Your task to perform on an android device: Open the calendar app, open the side menu, and click the "Day" option Image 0: 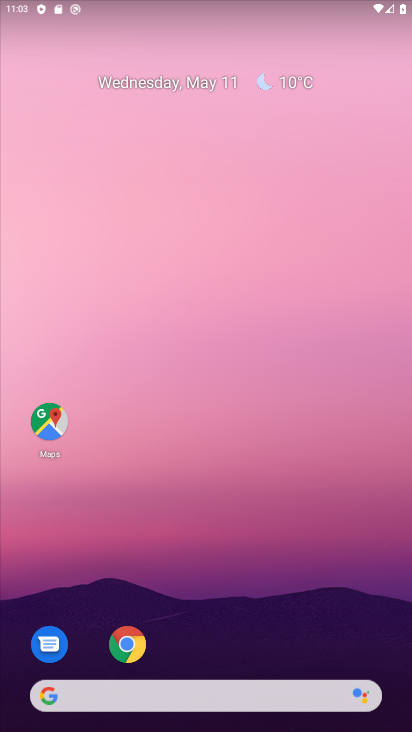
Step 0: drag from (281, 551) to (296, 35)
Your task to perform on an android device: Open the calendar app, open the side menu, and click the "Day" option Image 1: 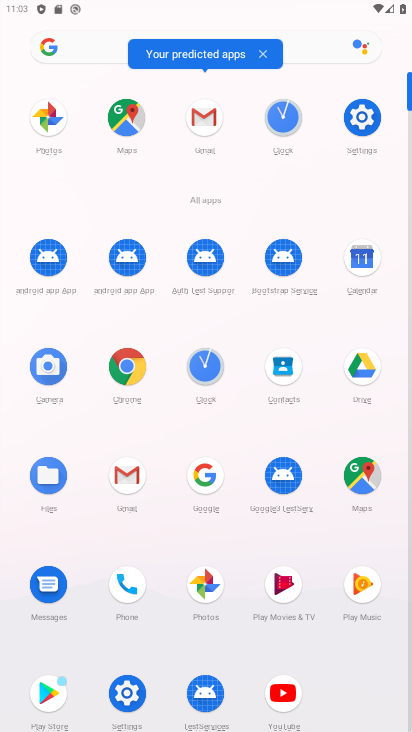
Step 1: click (366, 269)
Your task to perform on an android device: Open the calendar app, open the side menu, and click the "Day" option Image 2: 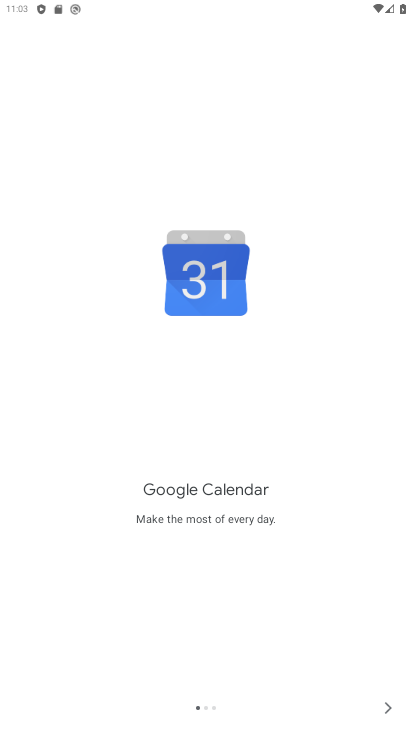
Step 2: click (395, 711)
Your task to perform on an android device: Open the calendar app, open the side menu, and click the "Day" option Image 3: 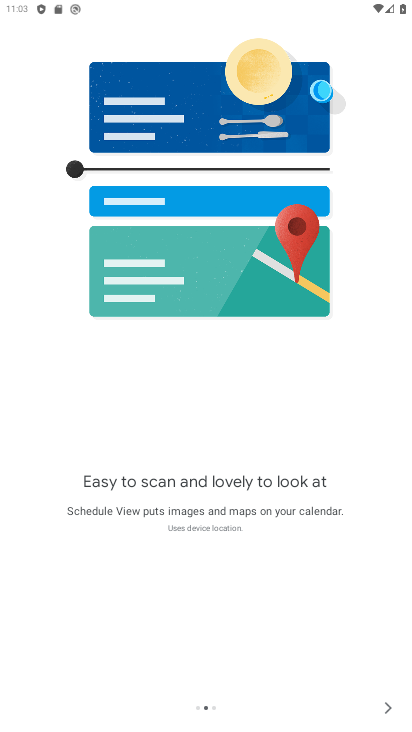
Step 3: click (379, 708)
Your task to perform on an android device: Open the calendar app, open the side menu, and click the "Day" option Image 4: 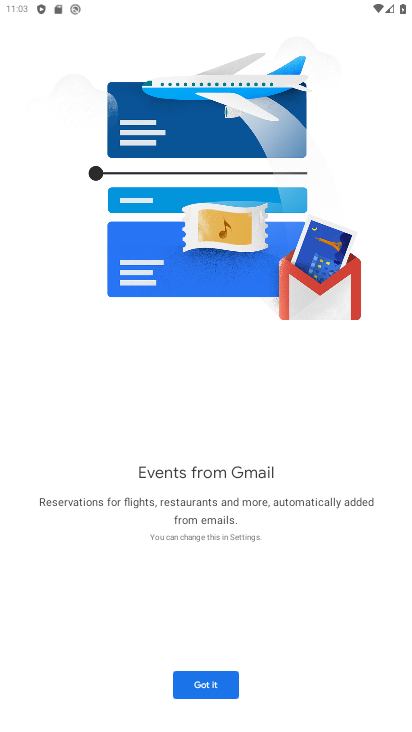
Step 4: click (213, 681)
Your task to perform on an android device: Open the calendar app, open the side menu, and click the "Day" option Image 5: 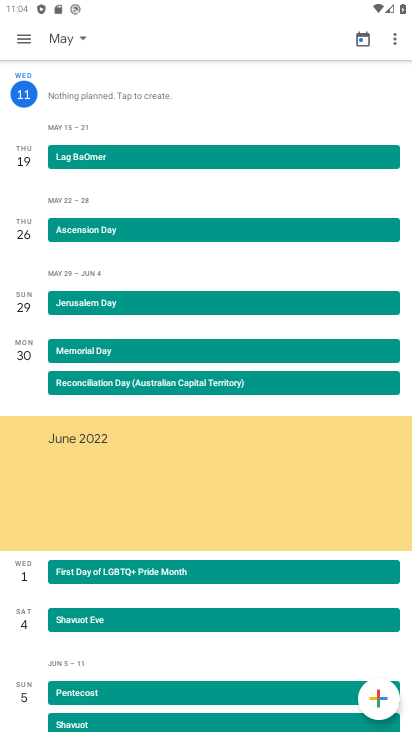
Step 5: click (20, 33)
Your task to perform on an android device: Open the calendar app, open the side menu, and click the "Day" option Image 6: 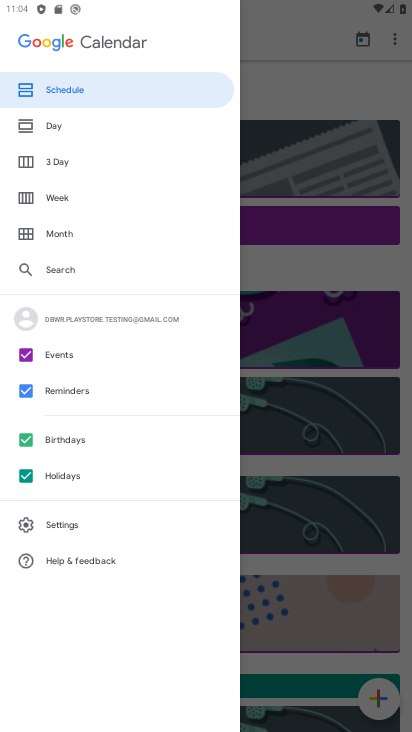
Step 6: click (40, 132)
Your task to perform on an android device: Open the calendar app, open the side menu, and click the "Day" option Image 7: 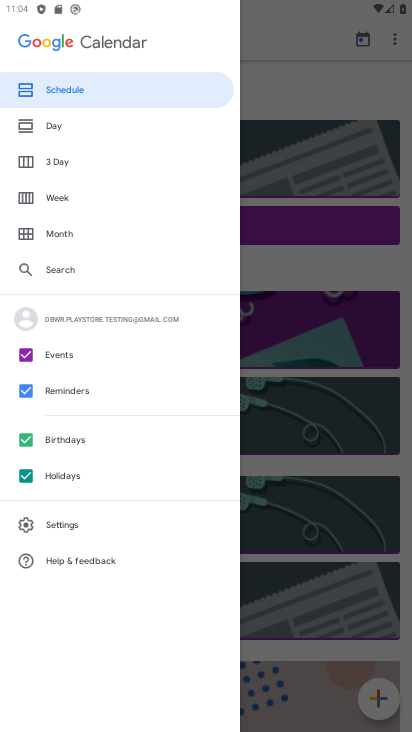
Step 7: task complete